Your task to perform on an android device: What's the news in Jamaica? Image 0: 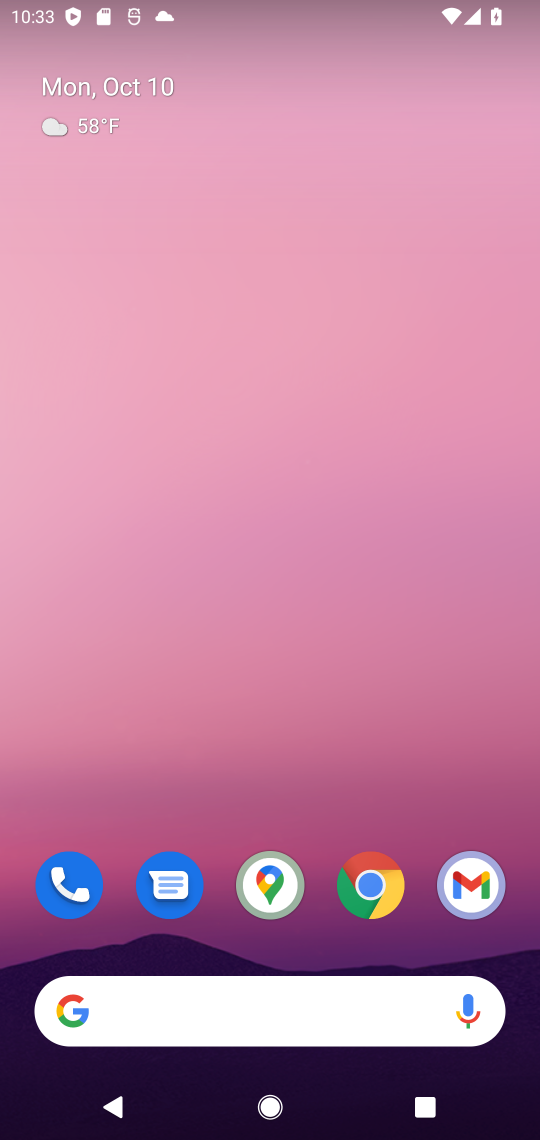
Step 0: click (389, 891)
Your task to perform on an android device: What's the news in Jamaica? Image 1: 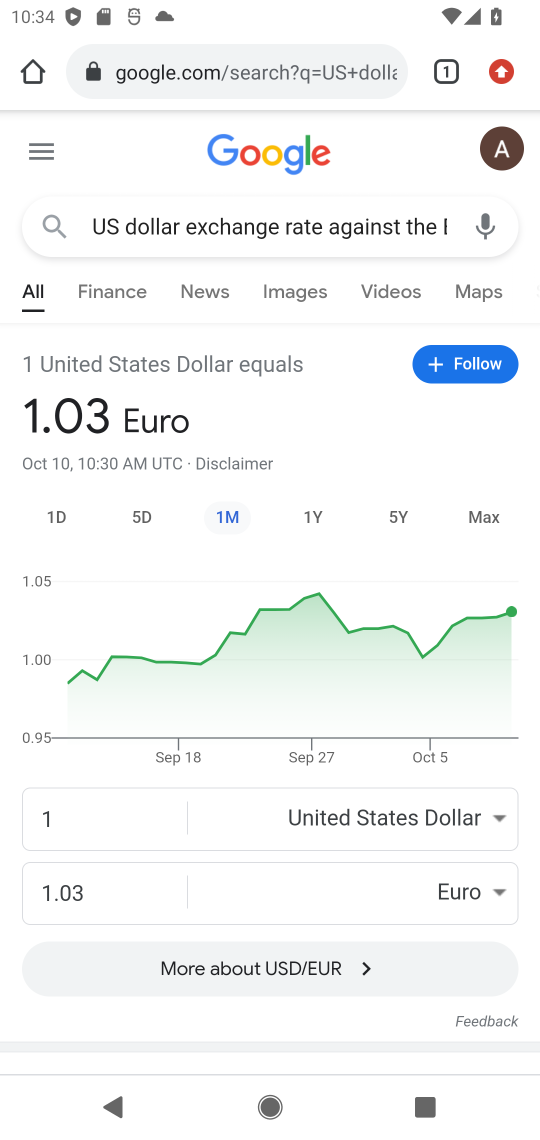
Step 1: click (298, 63)
Your task to perform on an android device: What's the news in Jamaica? Image 2: 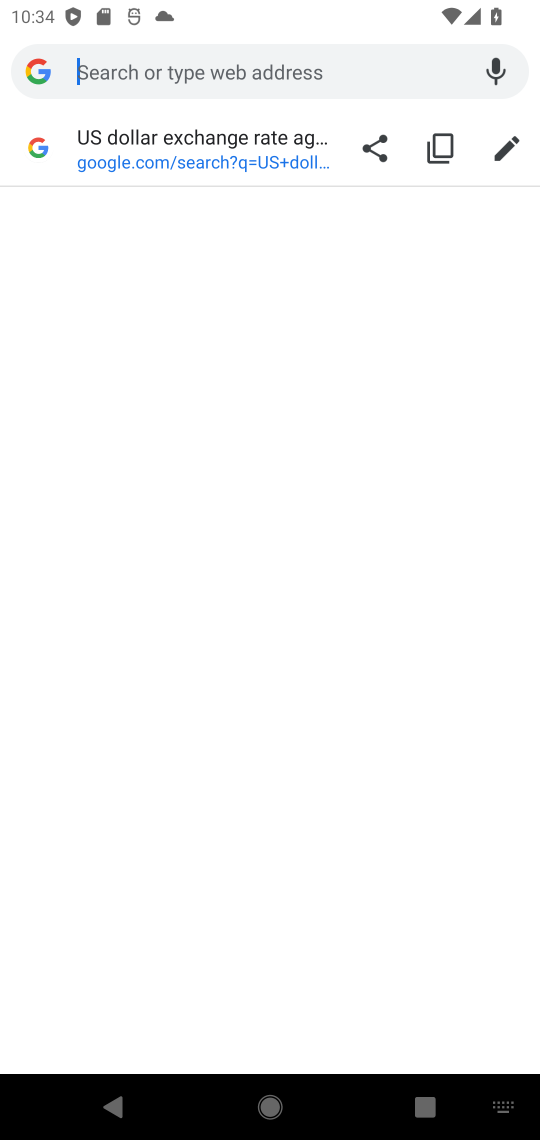
Step 2: type "jamaica"
Your task to perform on an android device: What's the news in Jamaica? Image 3: 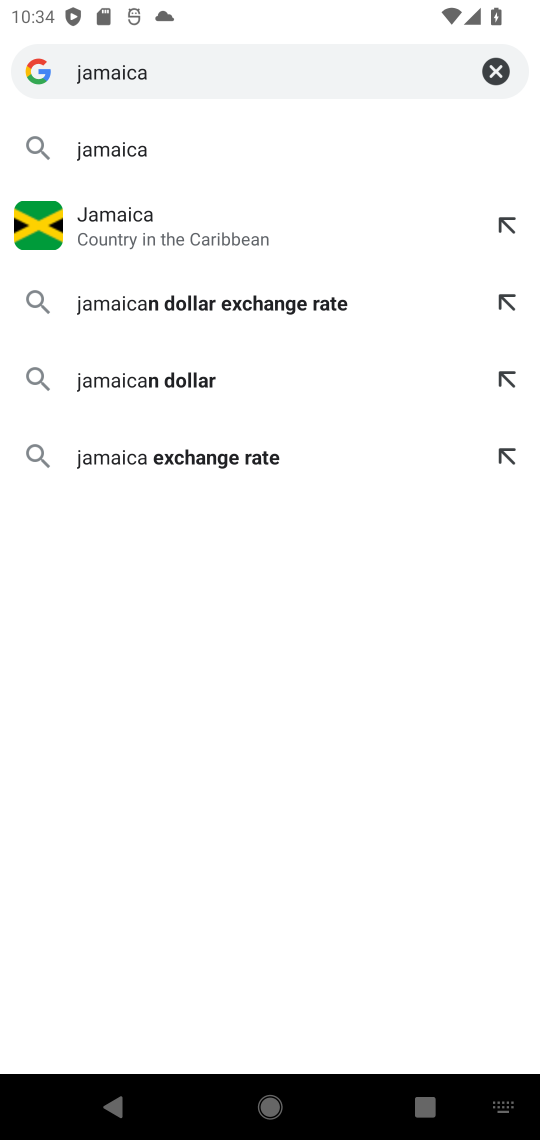
Step 3: click (176, 143)
Your task to perform on an android device: What's the news in Jamaica? Image 4: 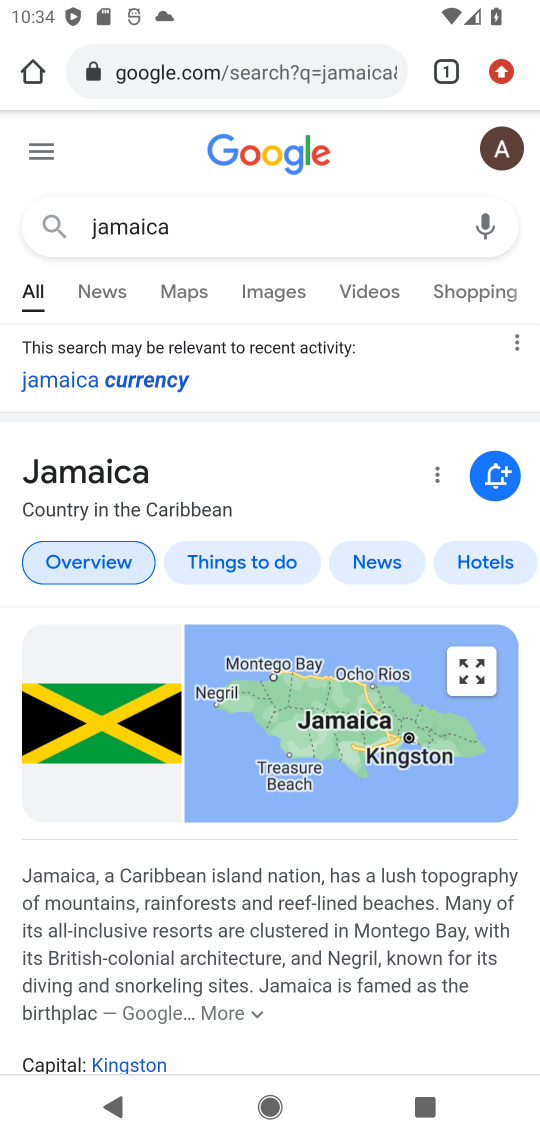
Step 4: click (118, 288)
Your task to perform on an android device: What's the news in Jamaica? Image 5: 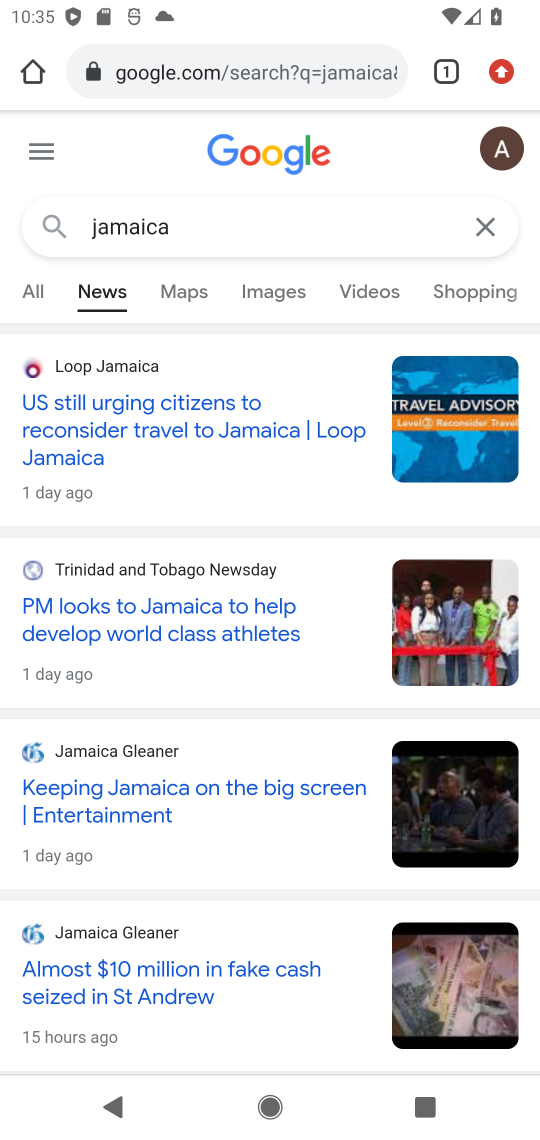
Step 5: task complete